Your task to perform on an android device: turn on showing notifications on the lock screen Image 0: 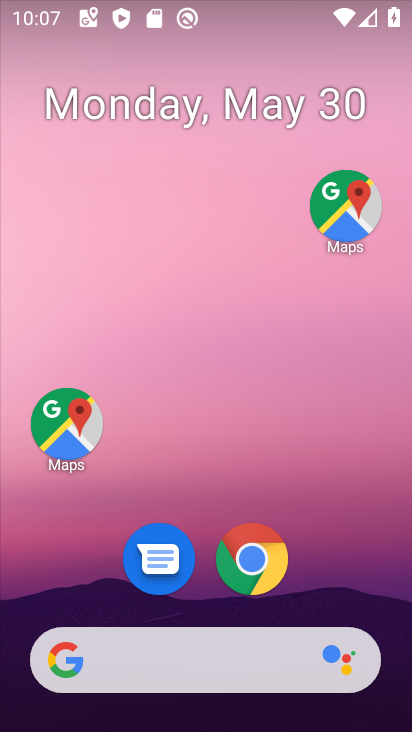
Step 0: drag from (368, 626) to (289, 78)
Your task to perform on an android device: turn on showing notifications on the lock screen Image 1: 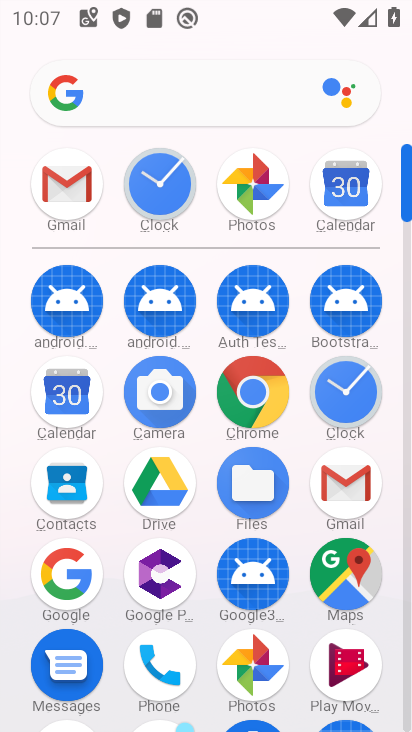
Step 1: drag from (300, 614) to (333, 192)
Your task to perform on an android device: turn on showing notifications on the lock screen Image 2: 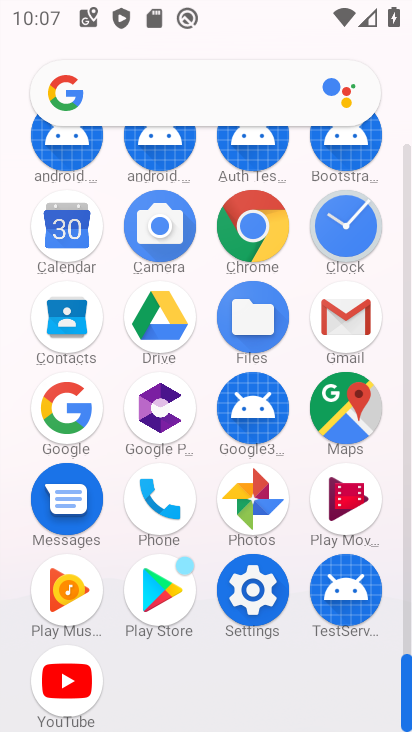
Step 2: click (262, 590)
Your task to perform on an android device: turn on showing notifications on the lock screen Image 3: 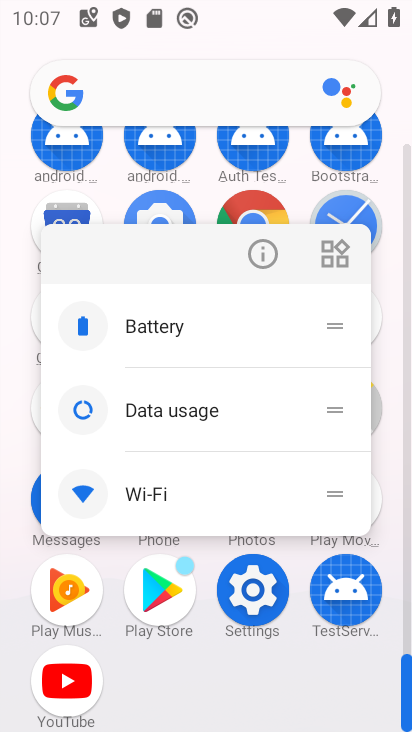
Step 3: click (262, 590)
Your task to perform on an android device: turn on showing notifications on the lock screen Image 4: 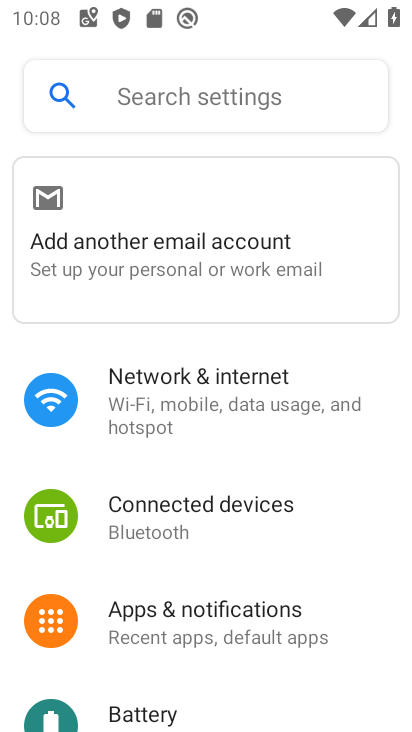
Step 4: click (229, 616)
Your task to perform on an android device: turn on showing notifications on the lock screen Image 5: 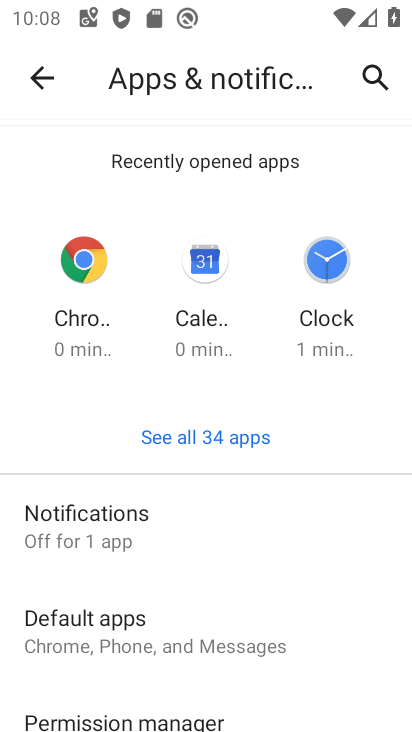
Step 5: drag from (230, 569) to (247, 301)
Your task to perform on an android device: turn on showing notifications on the lock screen Image 6: 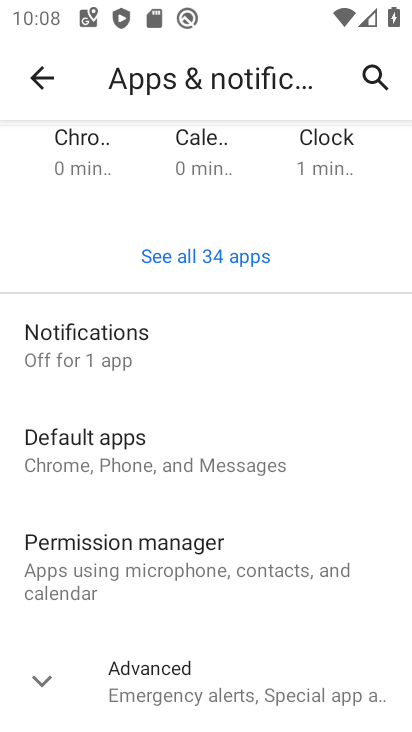
Step 6: click (122, 343)
Your task to perform on an android device: turn on showing notifications on the lock screen Image 7: 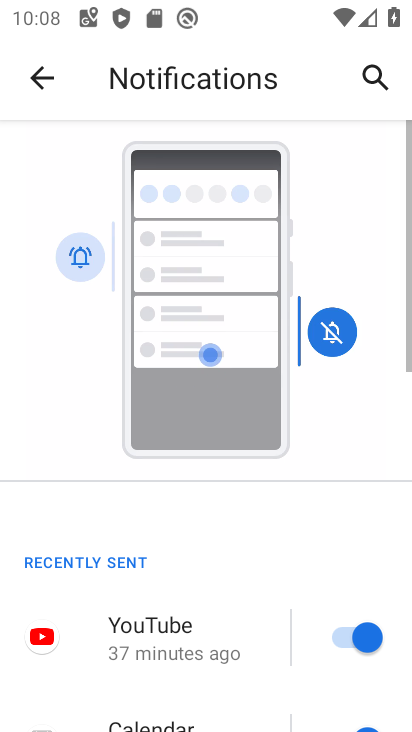
Step 7: drag from (234, 599) to (180, 36)
Your task to perform on an android device: turn on showing notifications on the lock screen Image 8: 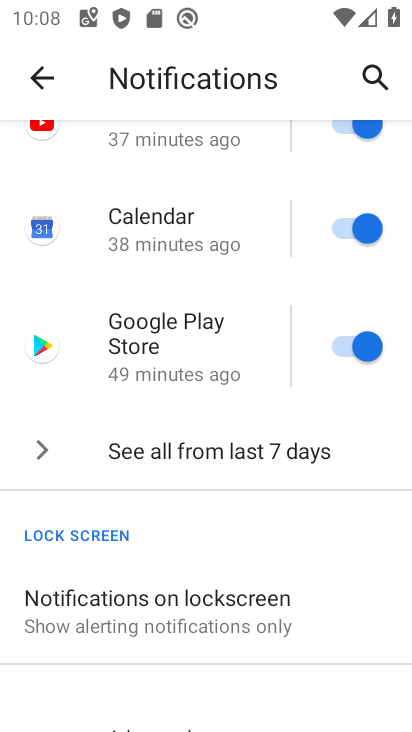
Step 8: click (191, 624)
Your task to perform on an android device: turn on showing notifications on the lock screen Image 9: 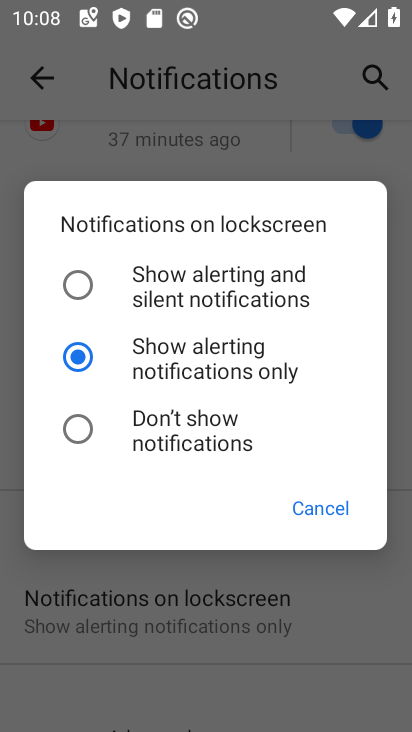
Step 9: task complete